Your task to perform on an android device: Search for razer blade on ebay.com, select the first entry, and add it to the cart. Image 0: 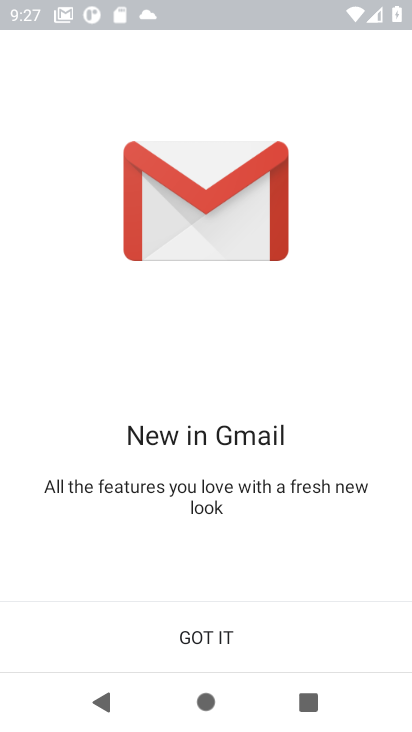
Step 0: press home button
Your task to perform on an android device: Search for razer blade on ebay.com, select the first entry, and add it to the cart. Image 1: 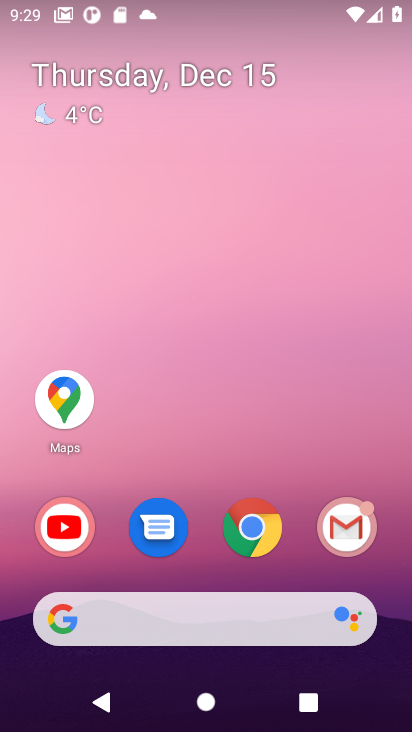
Step 1: click (282, 534)
Your task to perform on an android device: Search for razer blade on ebay.com, select the first entry, and add it to the cart. Image 2: 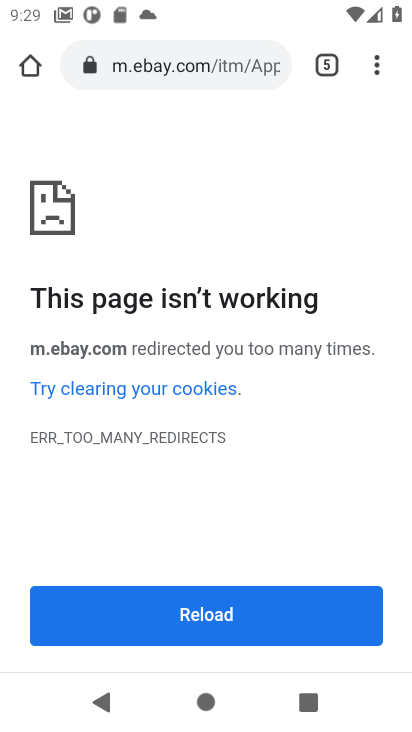
Step 2: click (156, 57)
Your task to perform on an android device: Search for razer blade on ebay.com, select the first entry, and add it to the cart. Image 3: 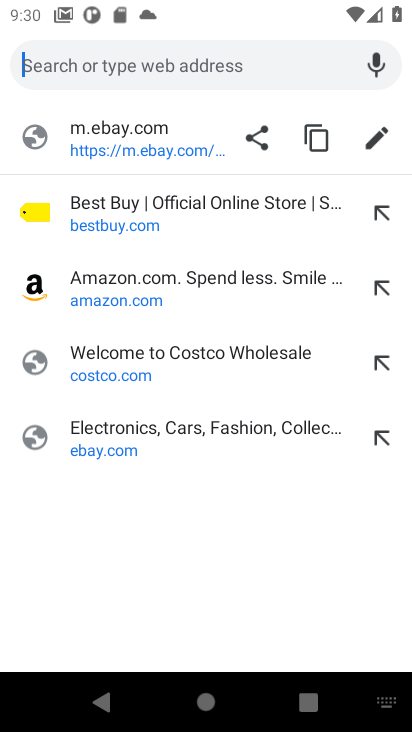
Step 3: task complete